Your task to perform on an android device: Open Android settings Image 0: 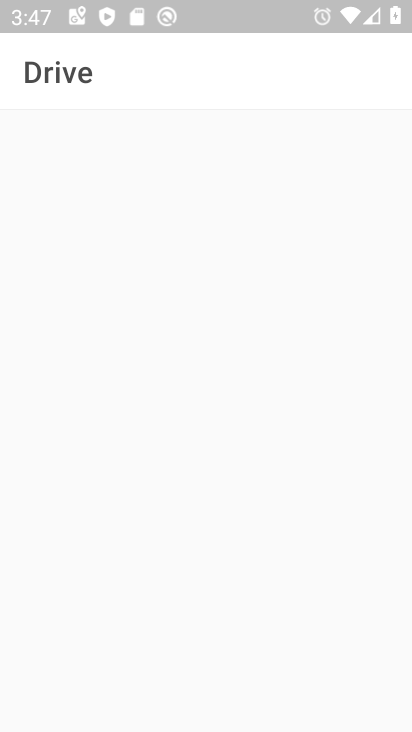
Step 0: press home button
Your task to perform on an android device: Open Android settings Image 1: 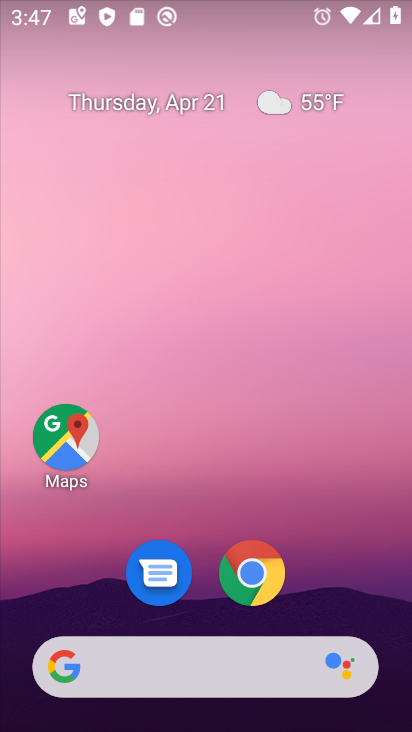
Step 1: drag from (326, 604) to (282, 227)
Your task to perform on an android device: Open Android settings Image 2: 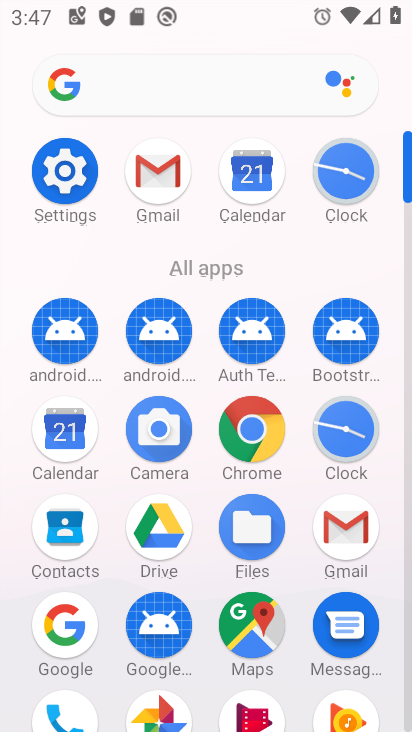
Step 2: click (409, 704)
Your task to perform on an android device: Open Android settings Image 3: 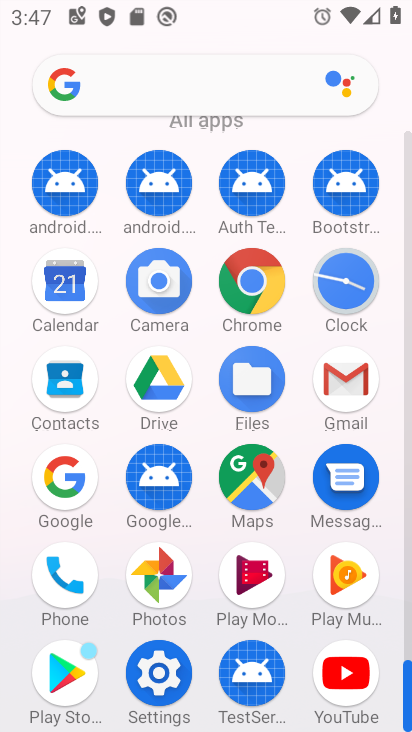
Step 3: click (160, 675)
Your task to perform on an android device: Open Android settings Image 4: 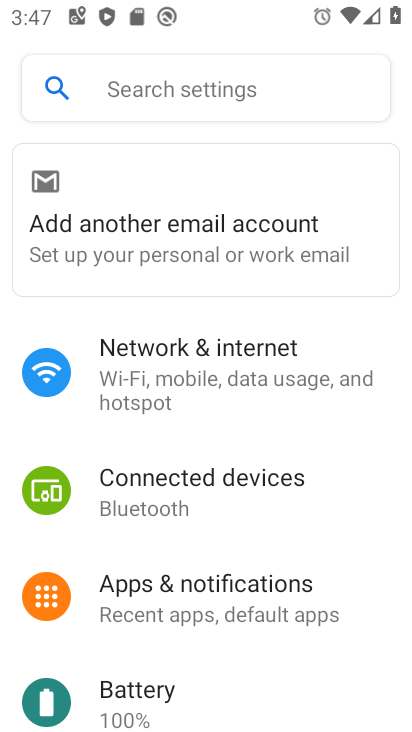
Step 4: drag from (328, 647) to (332, 380)
Your task to perform on an android device: Open Android settings Image 5: 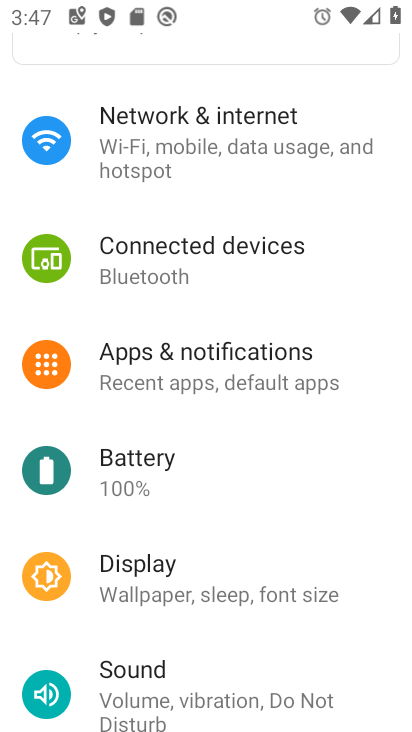
Step 5: drag from (347, 585) to (362, 286)
Your task to perform on an android device: Open Android settings Image 6: 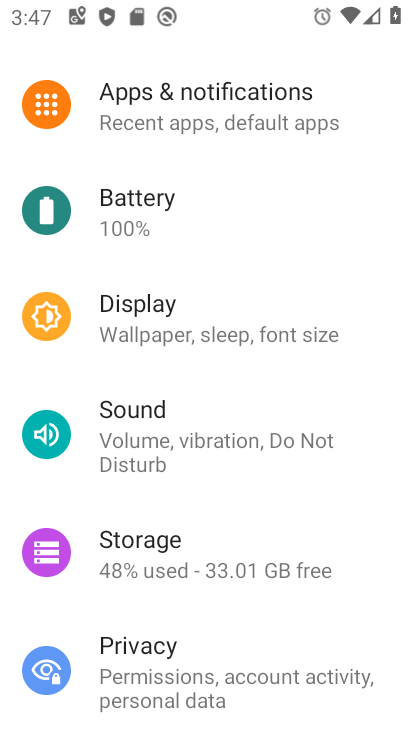
Step 6: drag from (361, 588) to (348, 310)
Your task to perform on an android device: Open Android settings Image 7: 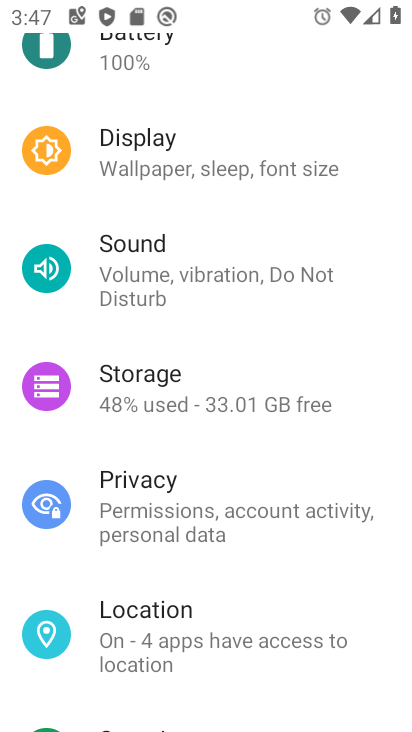
Step 7: drag from (358, 577) to (367, 361)
Your task to perform on an android device: Open Android settings Image 8: 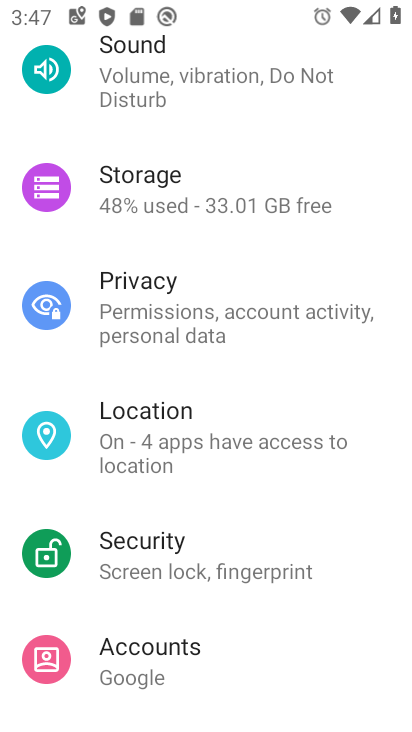
Step 8: drag from (324, 613) to (322, 406)
Your task to perform on an android device: Open Android settings Image 9: 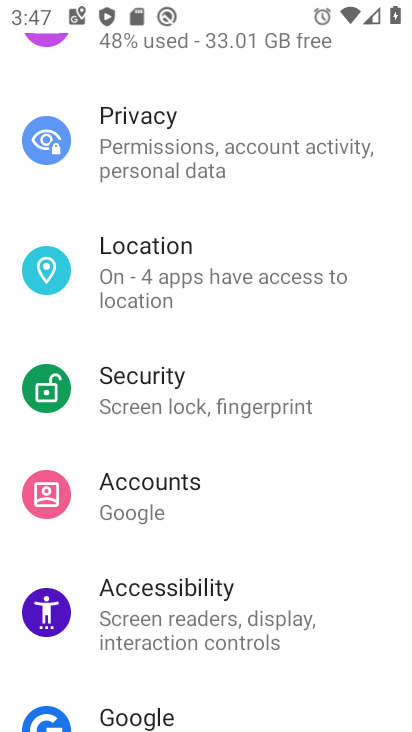
Step 9: drag from (325, 628) to (341, 351)
Your task to perform on an android device: Open Android settings Image 10: 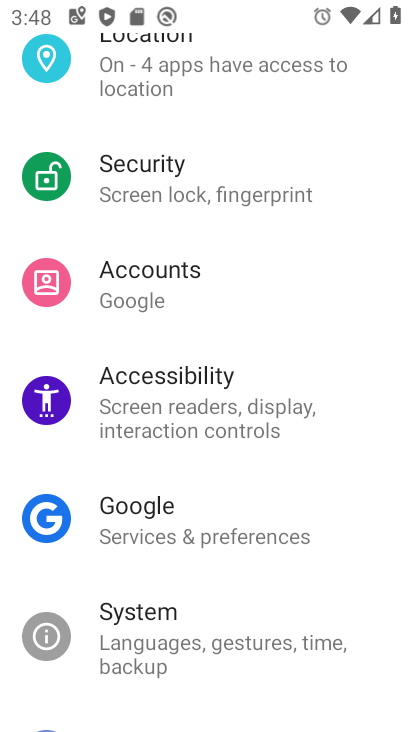
Step 10: drag from (317, 577) to (338, 339)
Your task to perform on an android device: Open Android settings Image 11: 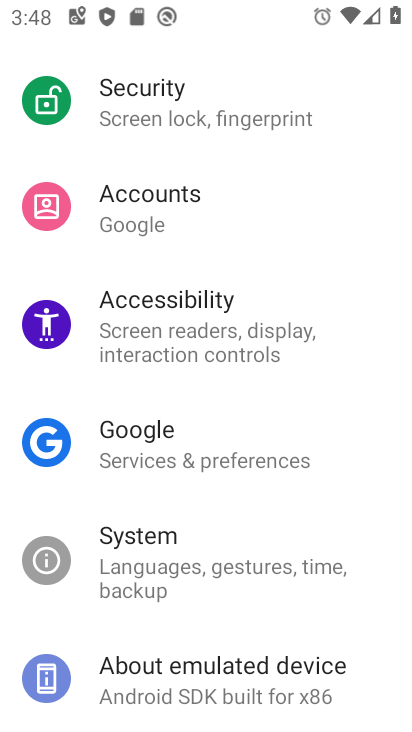
Step 11: click (156, 681)
Your task to perform on an android device: Open Android settings Image 12: 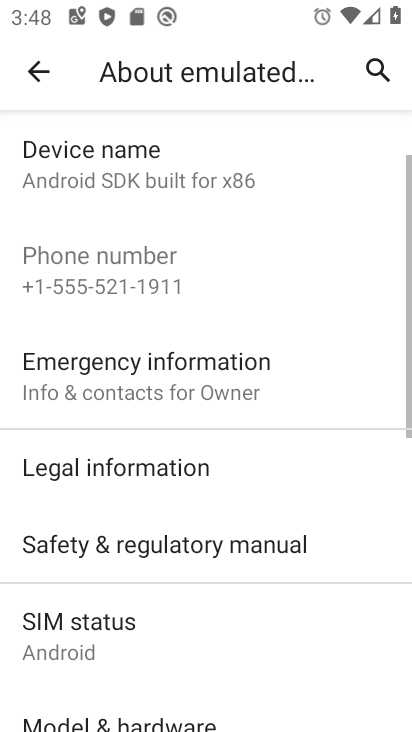
Step 12: drag from (349, 580) to (349, 389)
Your task to perform on an android device: Open Android settings Image 13: 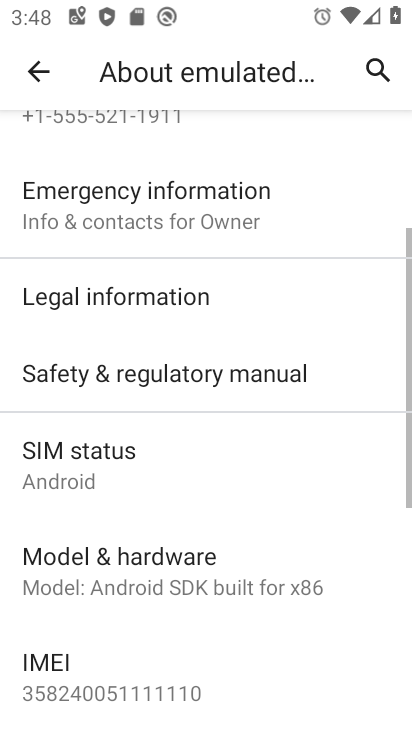
Step 13: drag from (327, 576) to (328, 395)
Your task to perform on an android device: Open Android settings Image 14: 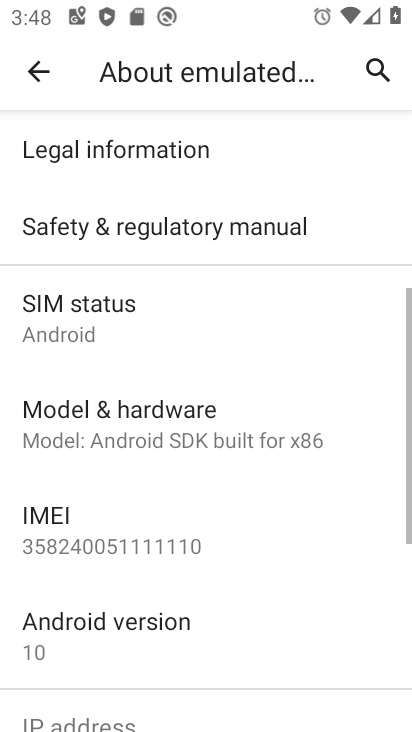
Step 14: drag from (291, 609) to (346, 321)
Your task to perform on an android device: Open Android settings Image 15: 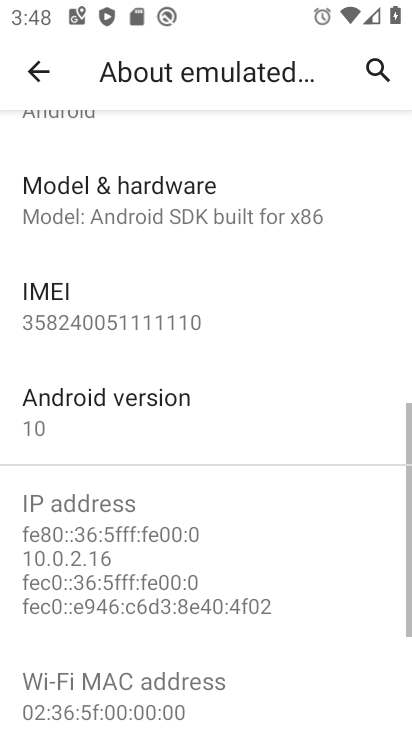
Step 15: drag from (335, 560) to (345, 347)
Your task to perform on an android device: Open Android settings Image 16: 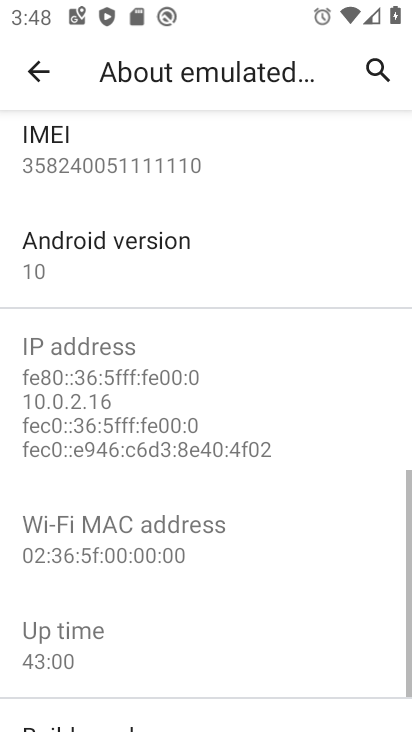
Step 16: click (111, 269)
Your task to perform on an android device: Open Android settings Image 17: 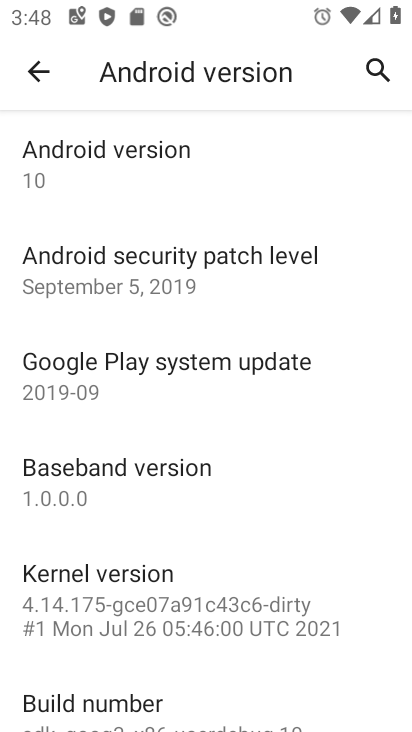
Step 17: task complete